Your task to perform on an android device: turn on bluetooth scan Image 0: 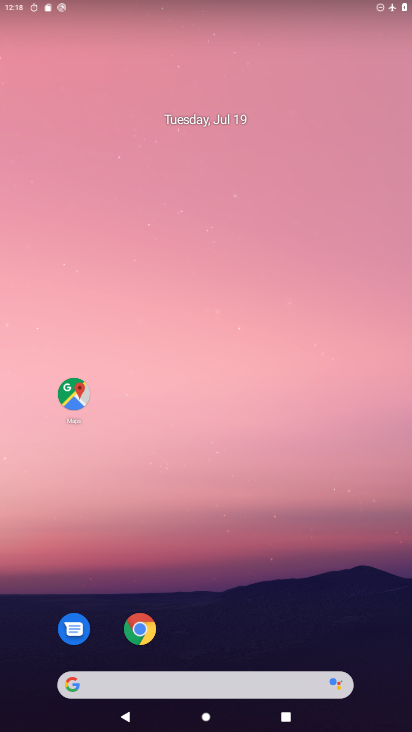
Step 0: drag from (299, 558) to (242, 36)
Your task to perform on an android device: turn on bluetooth scan Image 1: 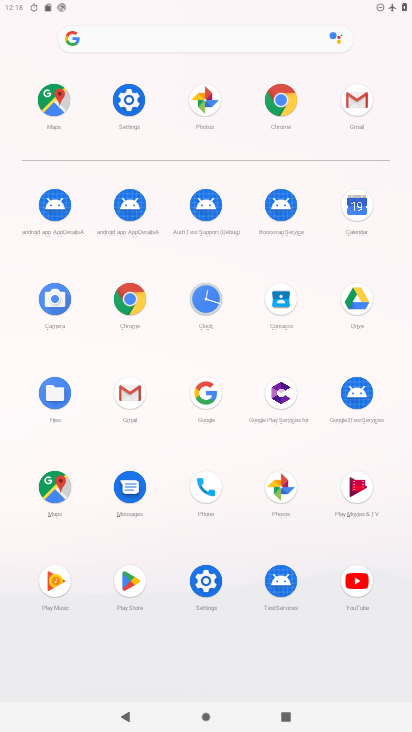
Step 1: click (123, 101)
Your task to perform on an android device: turn on bluetooth scan Image 2: 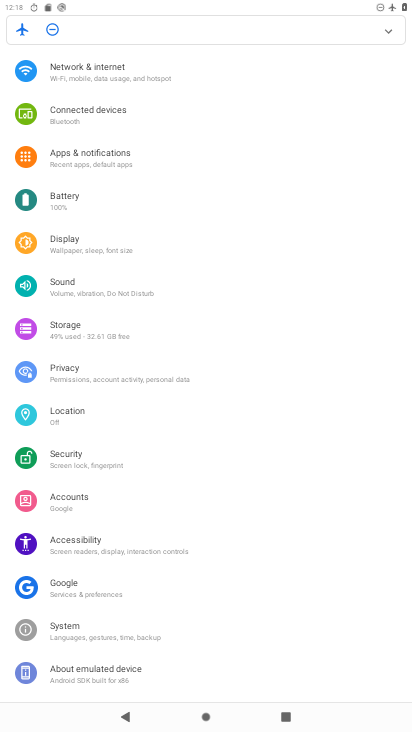
Step 2: click (54, 419)
Your task to perform on an android device: turn on bluetooth scan Image 3: 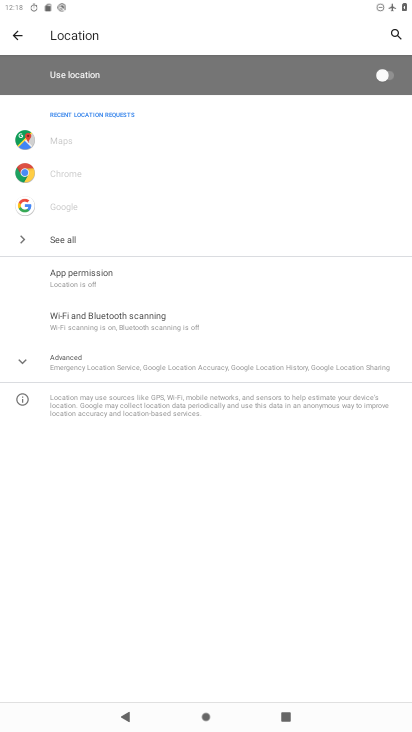
Step 3: click (71, 365)
Your task to perform on an android device: turn on bluetooth scan Image 4: 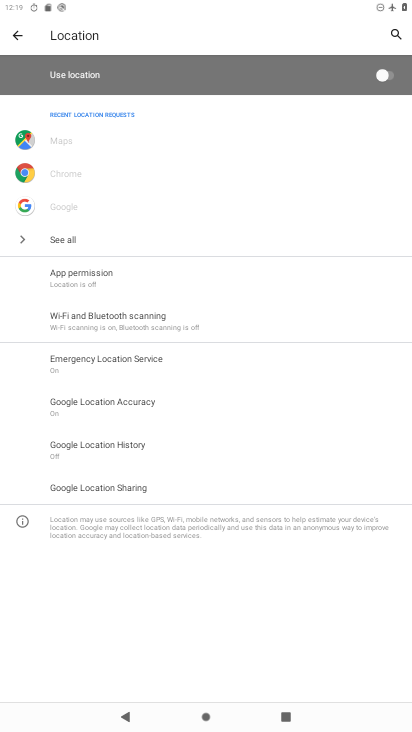
Step 4: click (109, 322)
Your task to perform on an android device: turn on bluetooth scan Image 5: 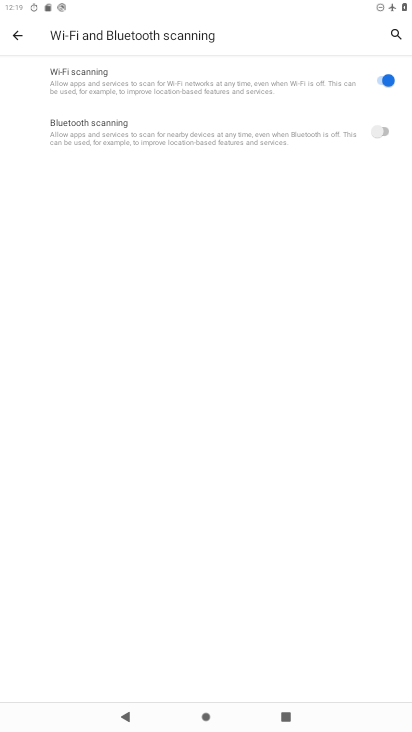
Step 5: click (385, 115)
Your task to perform on an android device: turn on bluetooth scan Image 6: 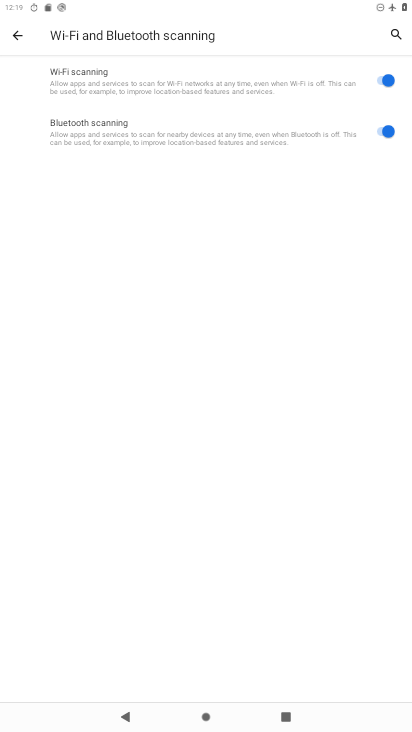
Step 6: task complete